Your task to perform on an android device: Clear the shopping cart on walmart. Add "dell xps" to the cart on walmart Image 0: 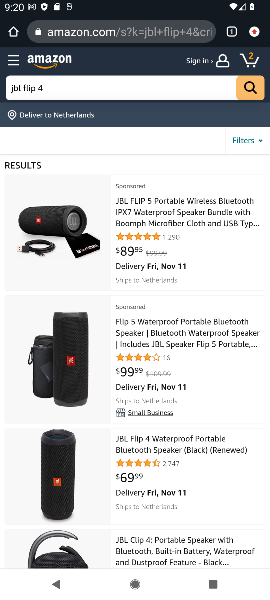
Step 0: click (123, 32)
Your task to perform on an android device: Clear the shopping cart on walmart. Add "dell xps" to the cart on walmart Image 1: 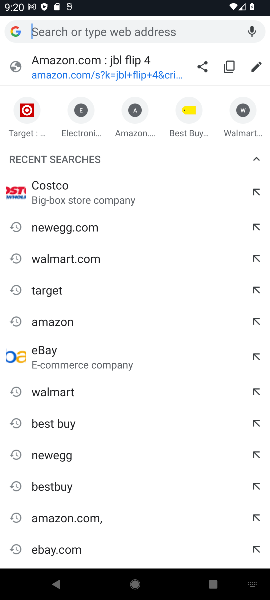
Step 1: click (229, 118)
Your task to perform on an android device: Clear the shopping cart on walmart. Add "dell xps" to the cart on walmart Image 2: 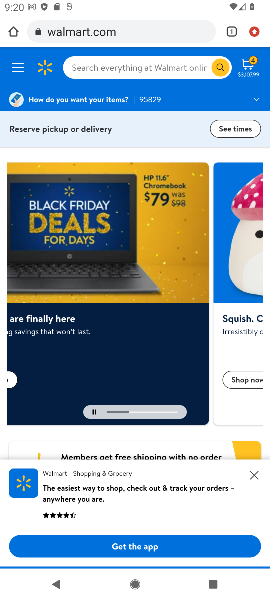
Step 2: click (251, 68)
Your task to perform on an android device: Clear the shopping cart on walmart. Add "dell xps" to the cart on walmart Image 3: 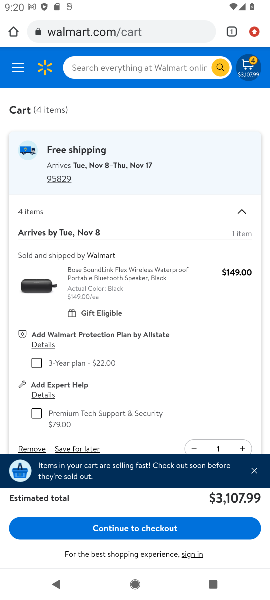
Step 3: drag from (99, 401) to (111, 270)
Your task to perform on an android device: Clear the shopping cart on walmart. Add "dell xps" to the cart on walmart Image 4: 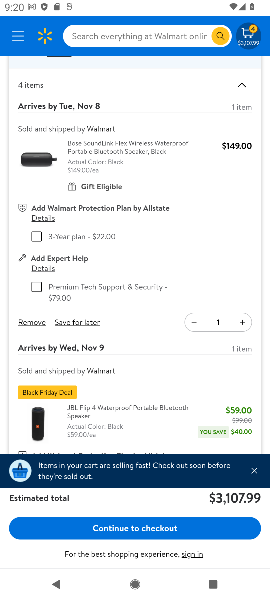
Step 4: click (30, 321)
Your task to perform on an android device: Clear the shopping cart on walmart. Add "dell xps" to the cart on walmart Image 5: 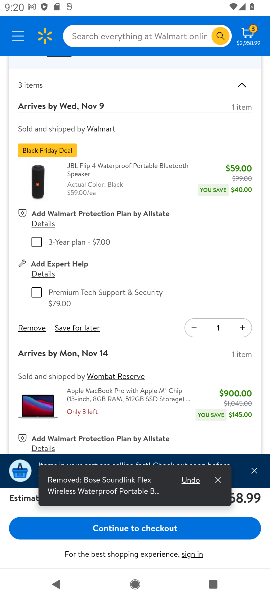
Step 5: click (30, 323)
Your task to perform on an android device: Clear the shopping cart on walmart. Add "dell xps" to the cart on walmart Image 6: 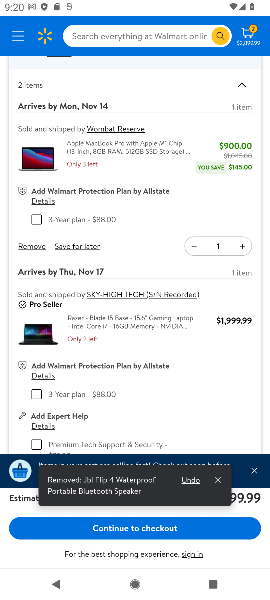
Step 6: click (30, 246)
Your task to perform on an android device: Clear the shopping cart on walmart. Add "dell xps" to the cart on walmart Image 7: 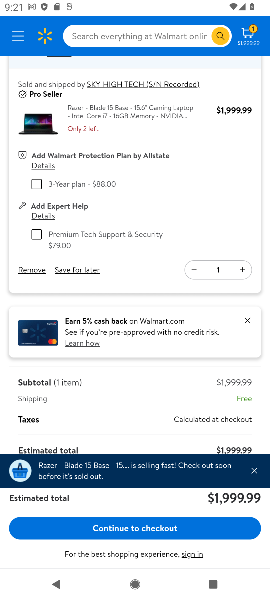
Step 7: click (30, 270)
Your task to perform on an android device: Clear the shopping cart on walmart. Add "dell xps" to the cart on walmart Image 8: 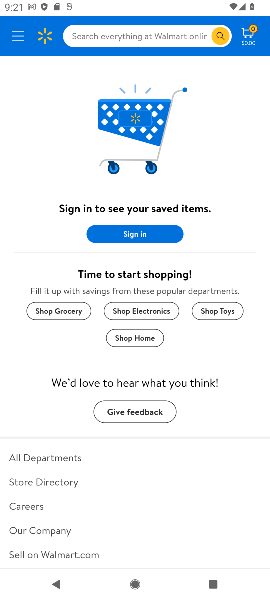
Step 8: click (101, 39)
Your task to perform on an android device: Clear the shopping cart on walmart. Add "dell xps" to the cart on walmart Image 9: 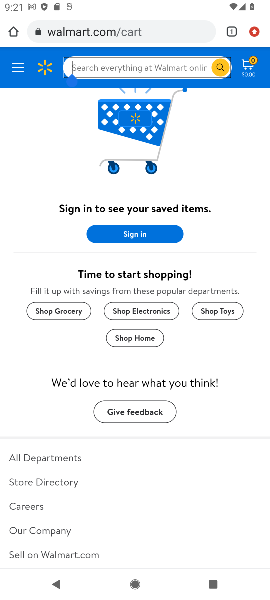
Step 9: type "dell xps"
Your task to perform on an android device: Clear the shopping cart on walmart. Add "dell xps" to the cart on walmart Image 10: 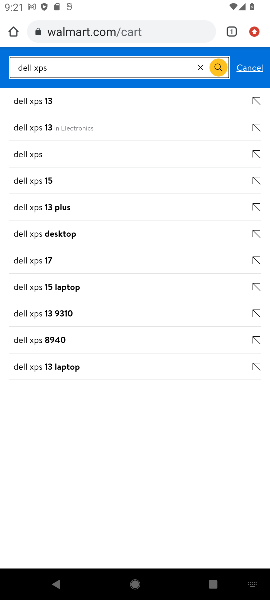
Step 10: click (25, 153)
Your task to perform on an android device: Clear the shopping cart on walmart. Add "dell xps" to the cart on walmart Image 11: 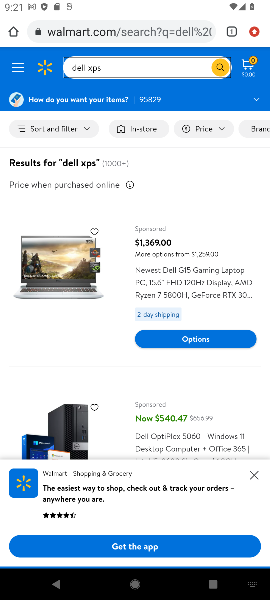
Step 11: drag from (72, 354) to (112, 201)
Your task to perform on an android device: Clear the shopping cart on walmart. Add "dell xps" to the cart on walmart Image 12: 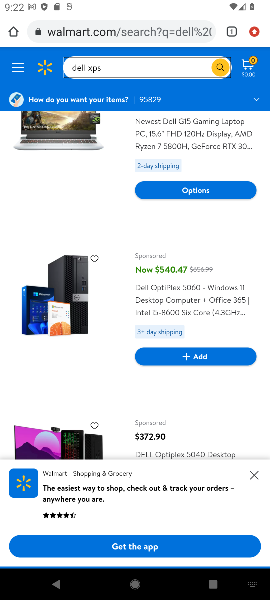
Step 12: drag from (72, 339) to (74, 247)
Your task to perform on an android device: Clear the shopping cart on walmart. Add "dell xps" to the cart on walmart Image 13: 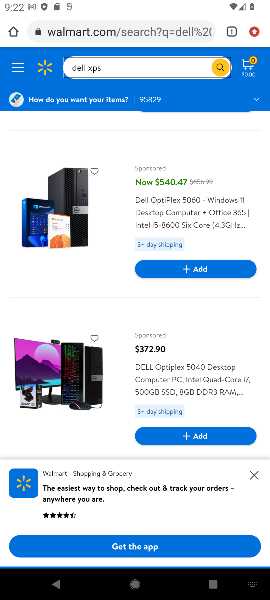
Step 13: drag from (86, 376) to (75, 177)
Your task to perform on an android device: Clear the shopping cart on walmart. Add "dell xps" to the cart on walmart Image 14: 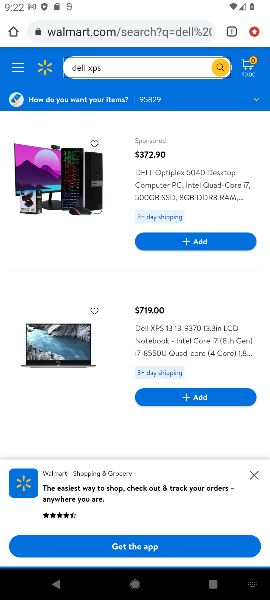
Step 14: click (202, 396)
Your task to perform on an android device: Clear the shopping cart on walmart. Add "dell xps" to the cart on walmart Image 15: 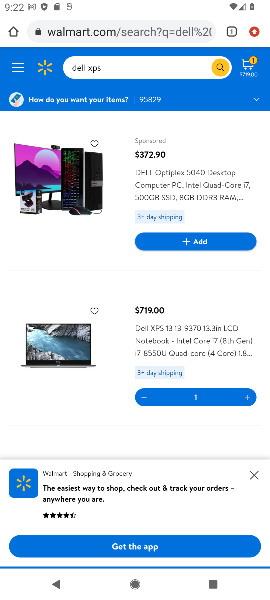
Step 15: task complete